Your task to perform on an android device: turn on notifications settings in the gmail app Image 0: 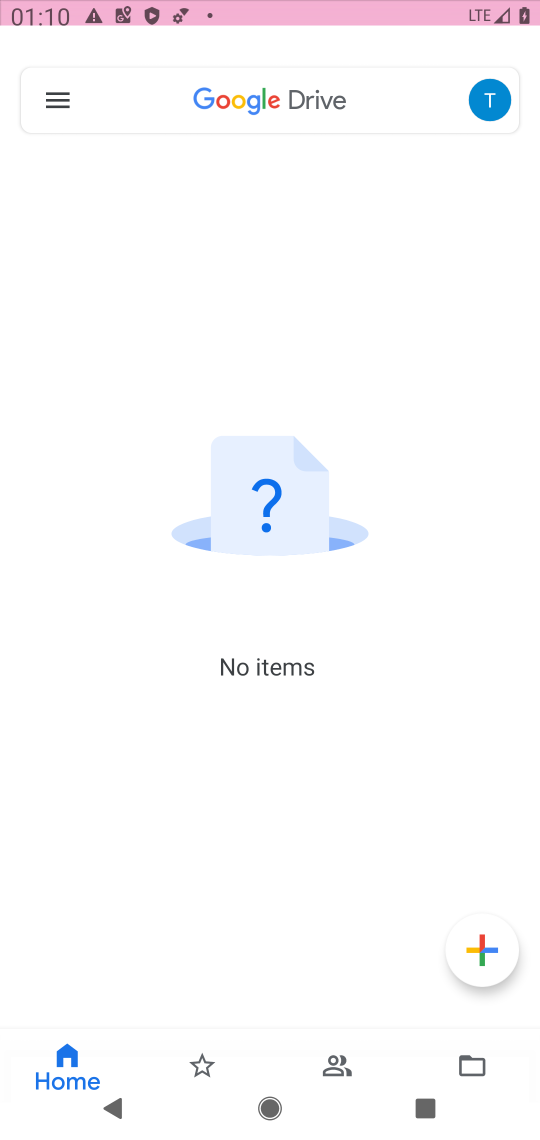
Step 0: press home button
Your task to perform on an android device: turn on notifications settings in the gmail app Image 1: 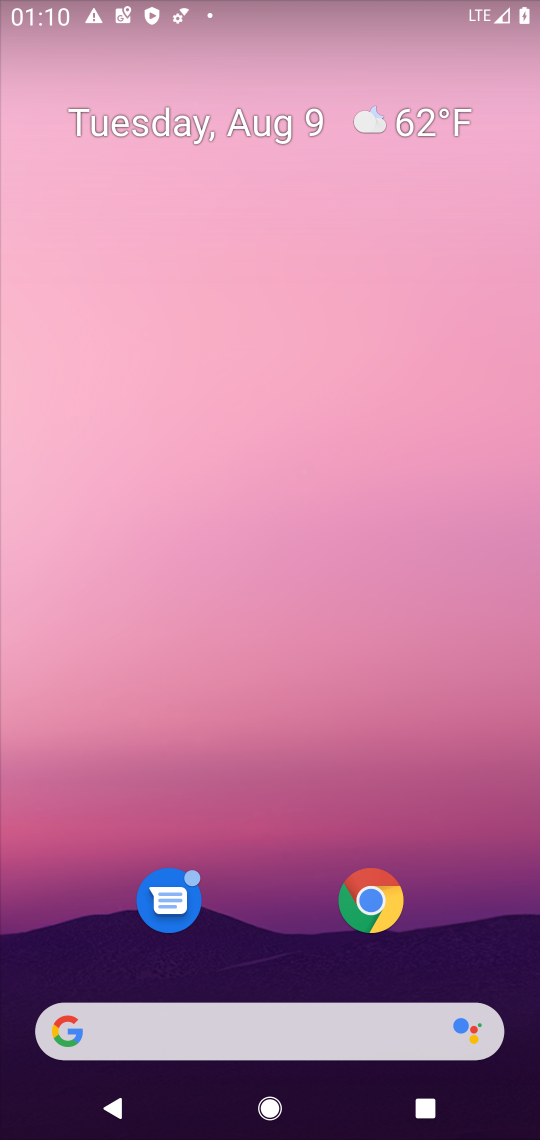
Step 1: drag from (275, 964) to (350, 215)
Your task to perform on an android device: turn on notifications settings in the gmail app Image 2: 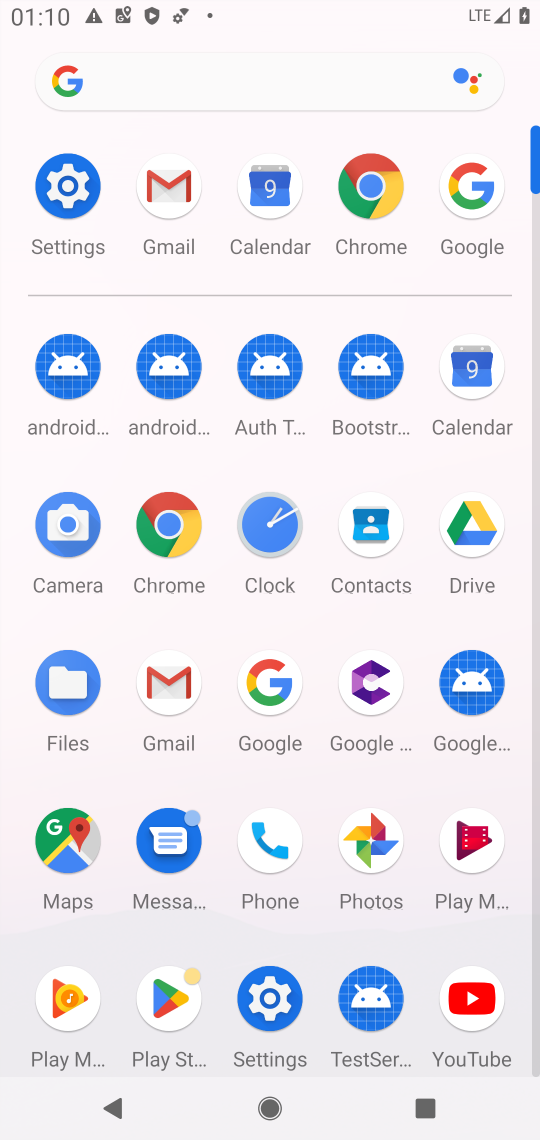
Step 2: click (162, 695)
Your task to perform on an android device: turn on notifications settings in the gmail app Image 3: 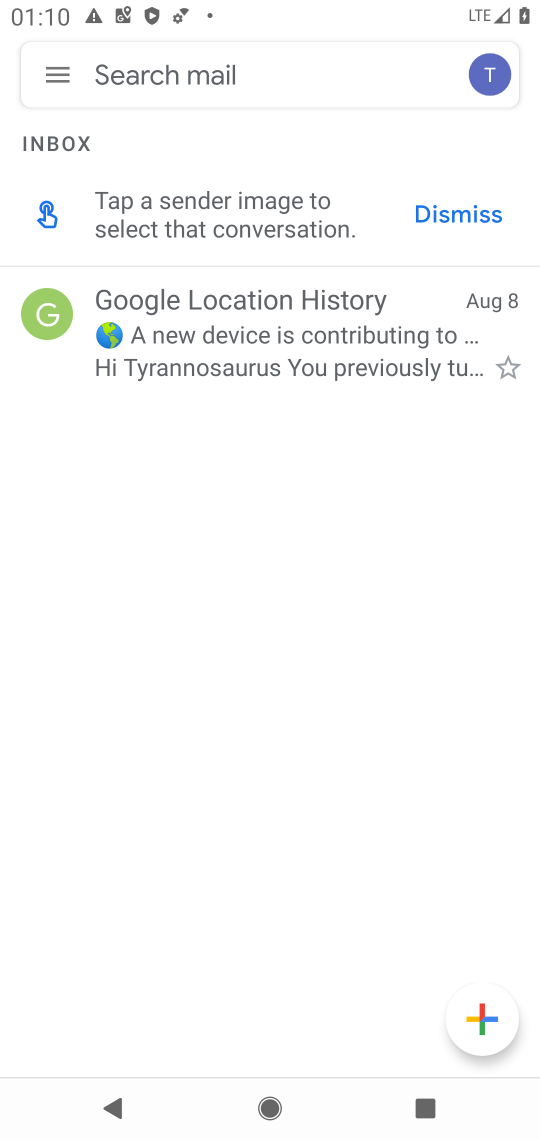
Step 3: click (58, 74)
Your task to perform on an android device: turn on notifications settings in the gmail app Image 4: 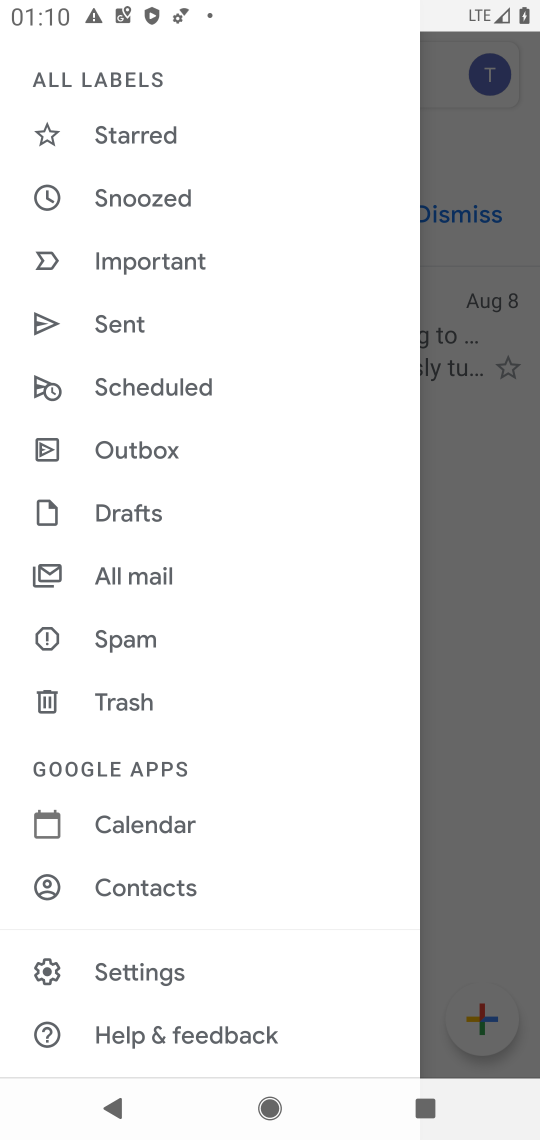
Step 4: click (153, 974)
Your task to perform on an android device: turn on notifications settings in the gmail app Image 5: 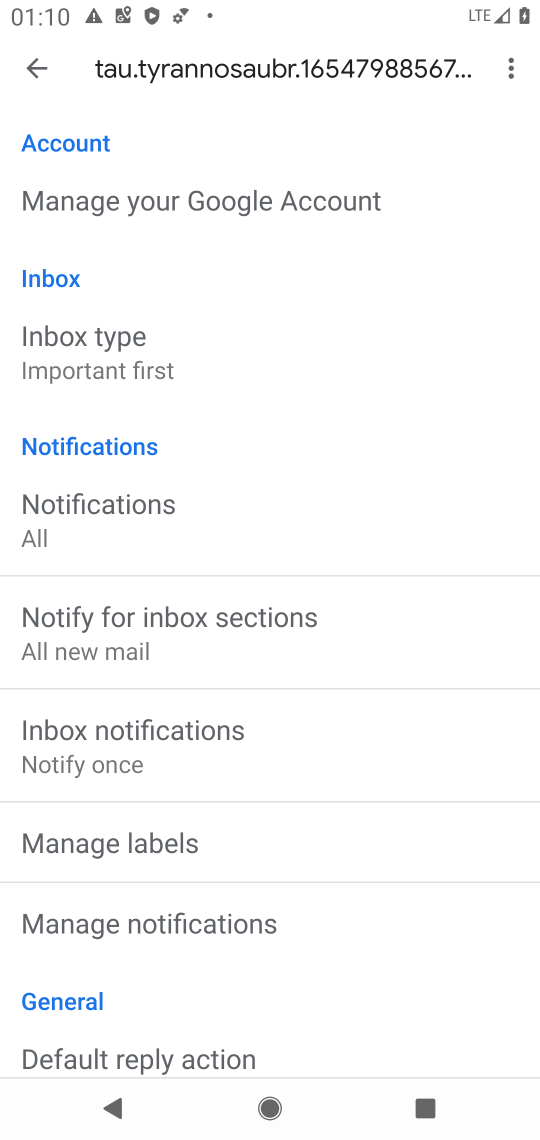
Step 5: drag from (368, 770) to (381, 441)
Your task to perform on an android device: turn on notifications settings in the gmail app Image 6: 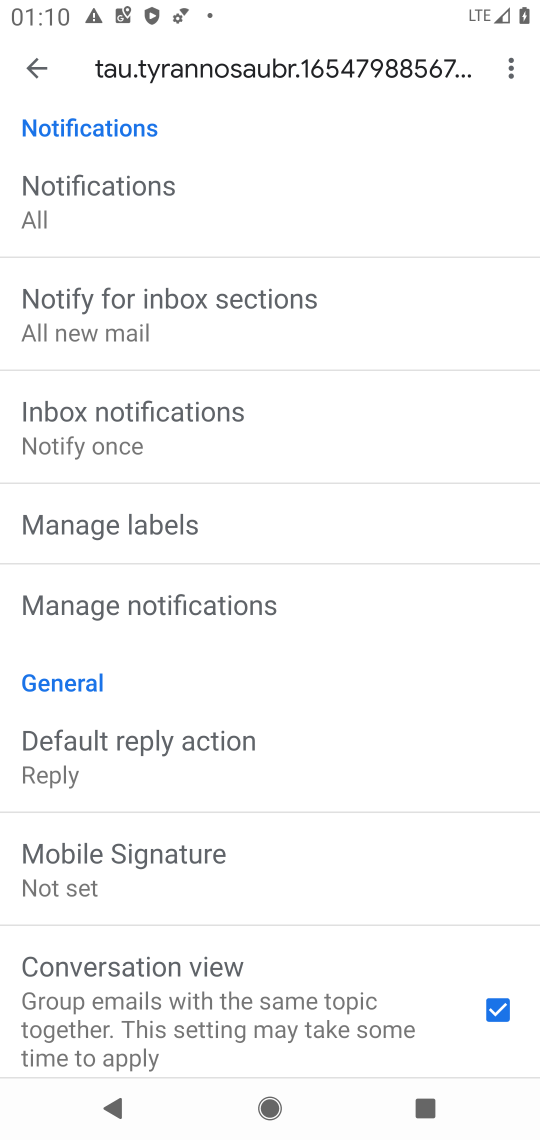
Step 6: drag from (382, 792) to (381, 382)
Your task to perform on an android device: turn on notifications settings in the gmail app Image 7: 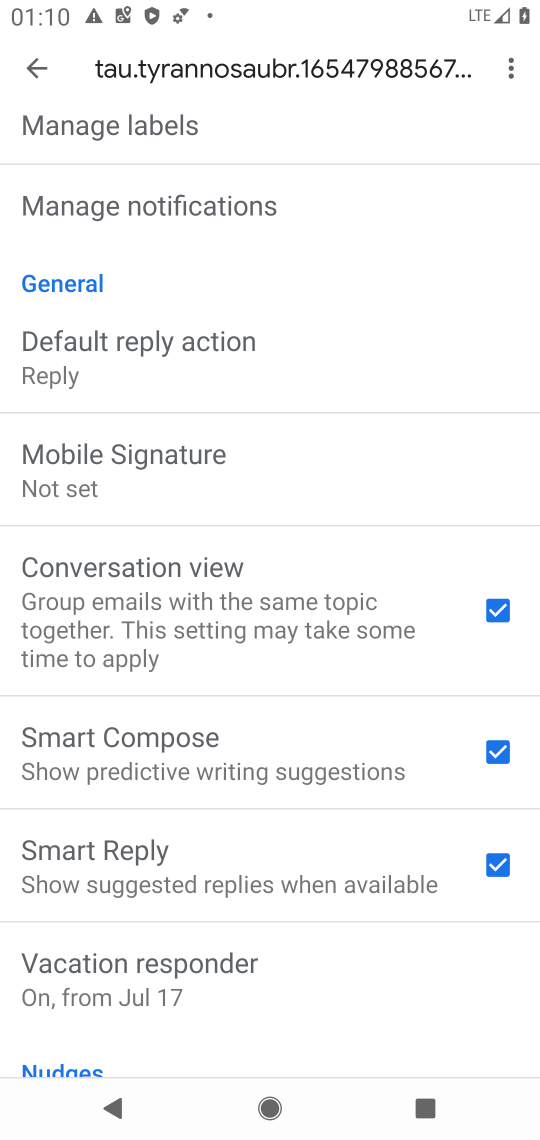
Step 7: drag from (372, 936) to (407, 476)
Your task to perform on an android device: turn on notifications settings in the gmail app Image 8: 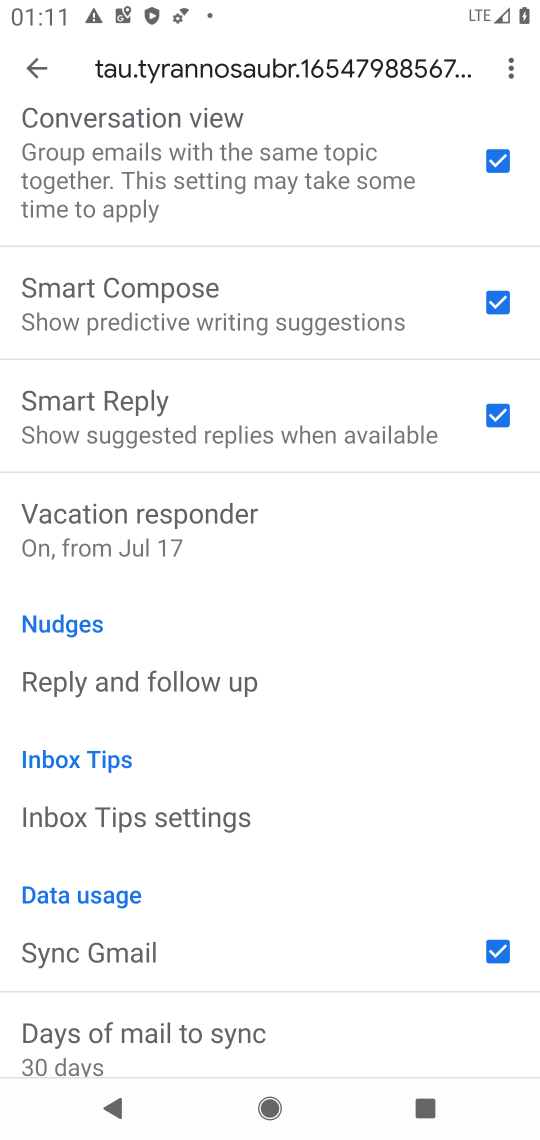
Step 8: drag from (374, 634) to (382, 516)
Your task to perform on an android device: turn on notifications settings in the gmail app Image 9: 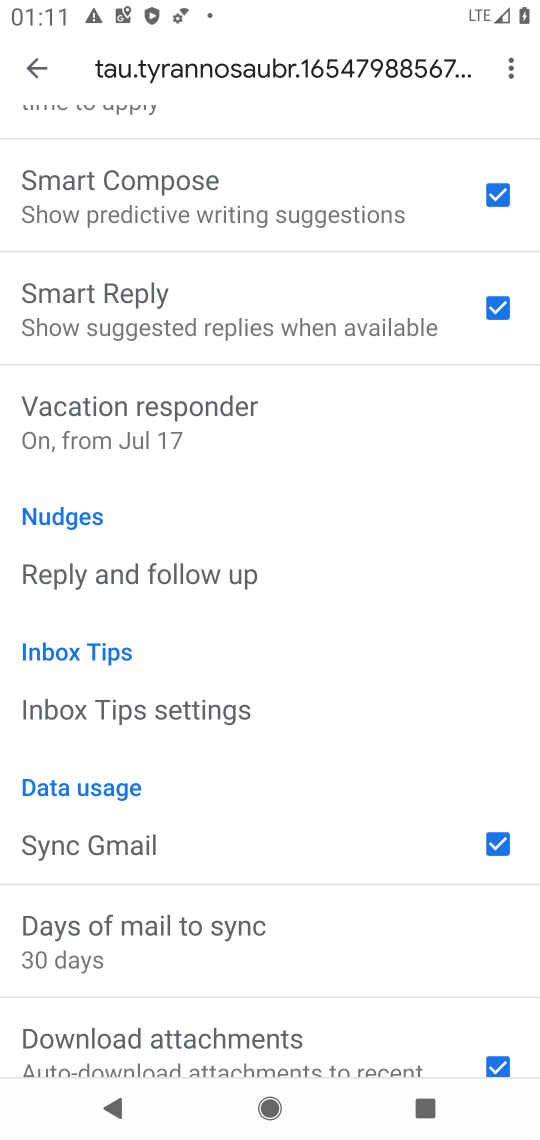
Step 9: drag from (386, 431) to (403, 638)
Your task to perform on an android device: turn on notifications settings in the gmail app Image 10: 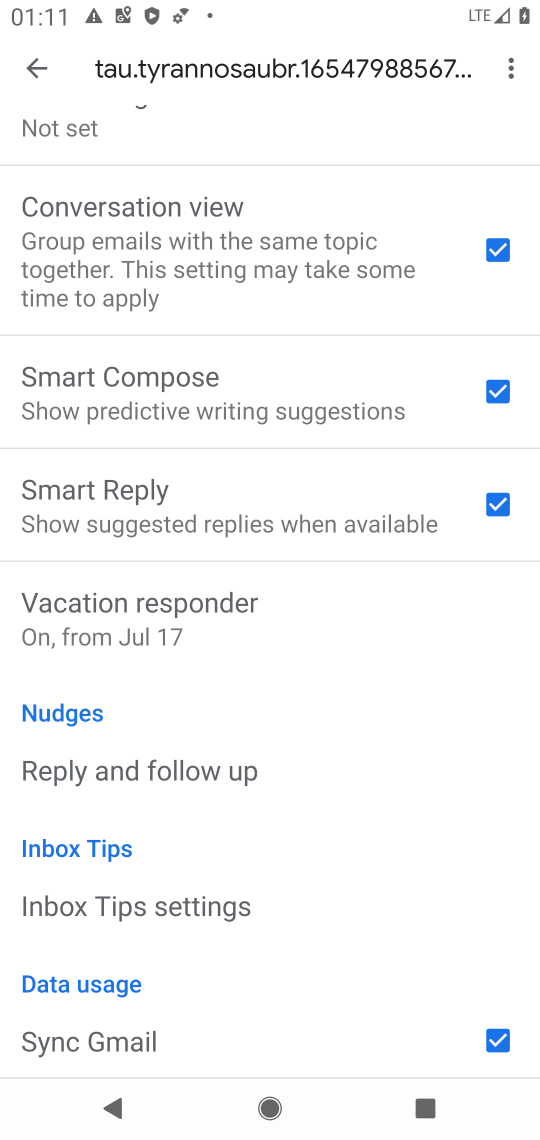
Step 10: drag from (387, 328) to (397, 643)
Your task to perform on an android device: turn on notifications settings in the gmail app Image 11: 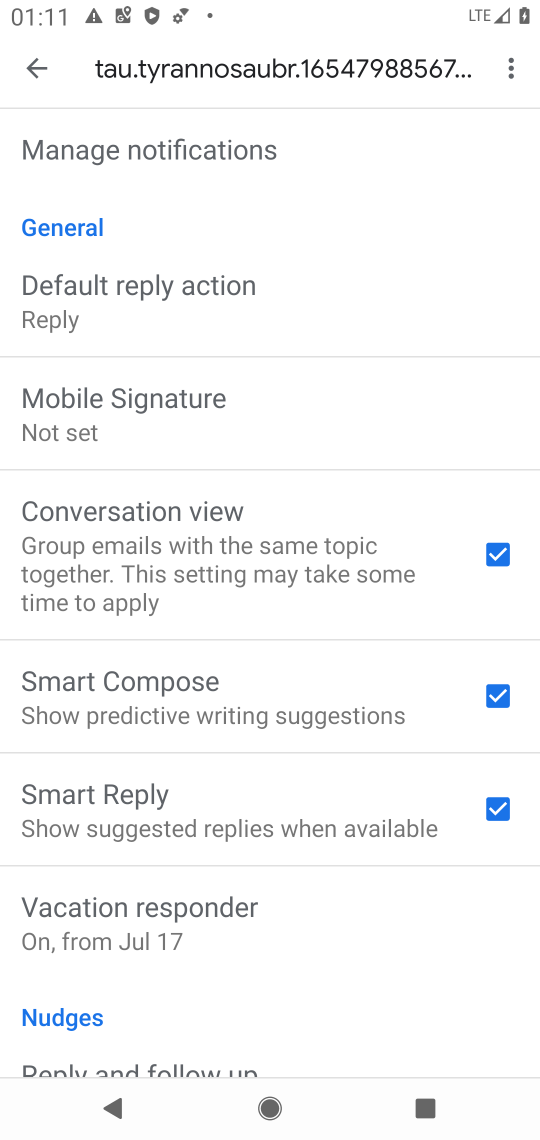
Step 11: drag from (356, 275) to (387, 517)
Your task to perform on an android device: turn on notifications settings in the gmail app Image 12: 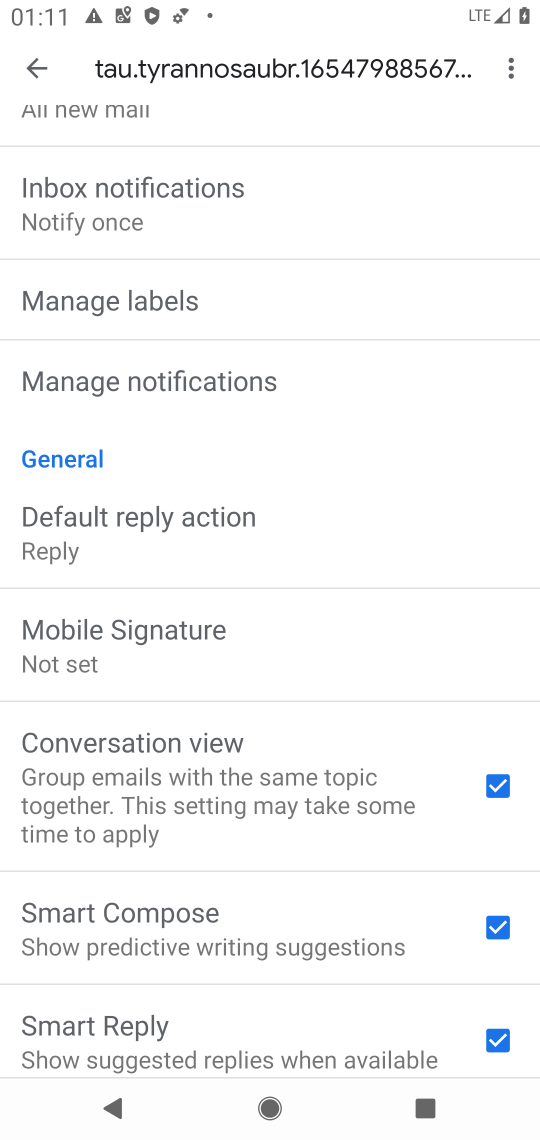
Step 12: drag from (384, 243) to (377, 471)
Your task to perform on an android device: turn on notifications settings in the gmail app Image 13: 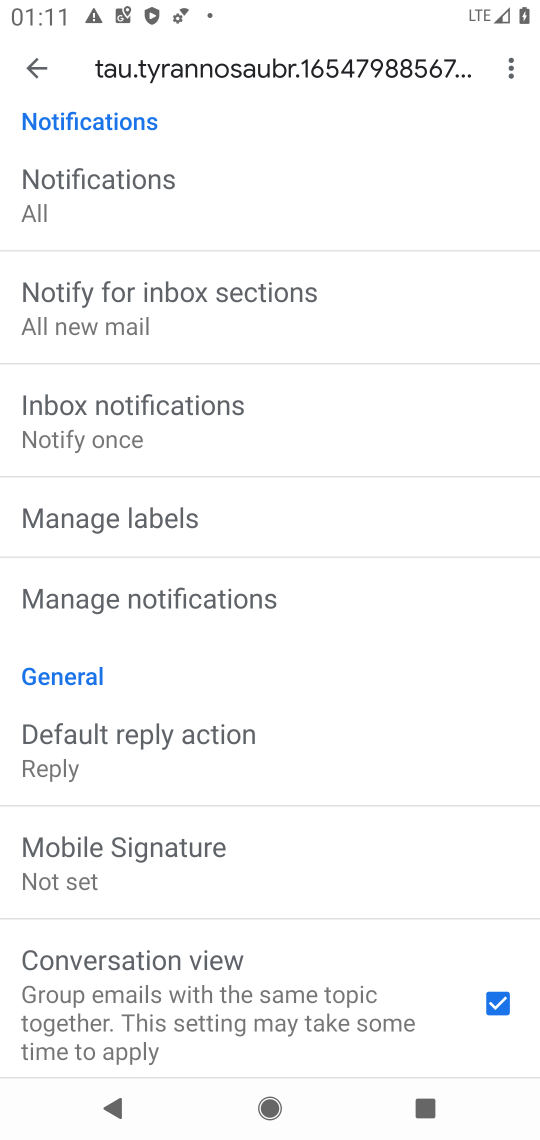
Step 13: click (324, 580)
Your task to perform on an android device: turn on notifications settings in the gmail app Image 14: 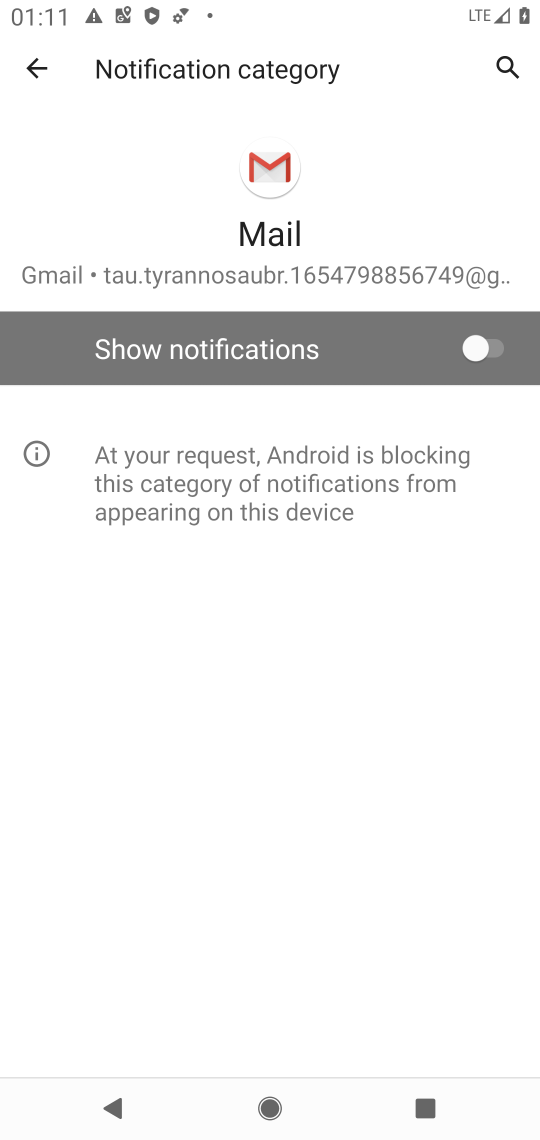
Step 14: click (324, 580)
Your task to perform on an android device: turn on notifications settings in the gmail app Image 15: 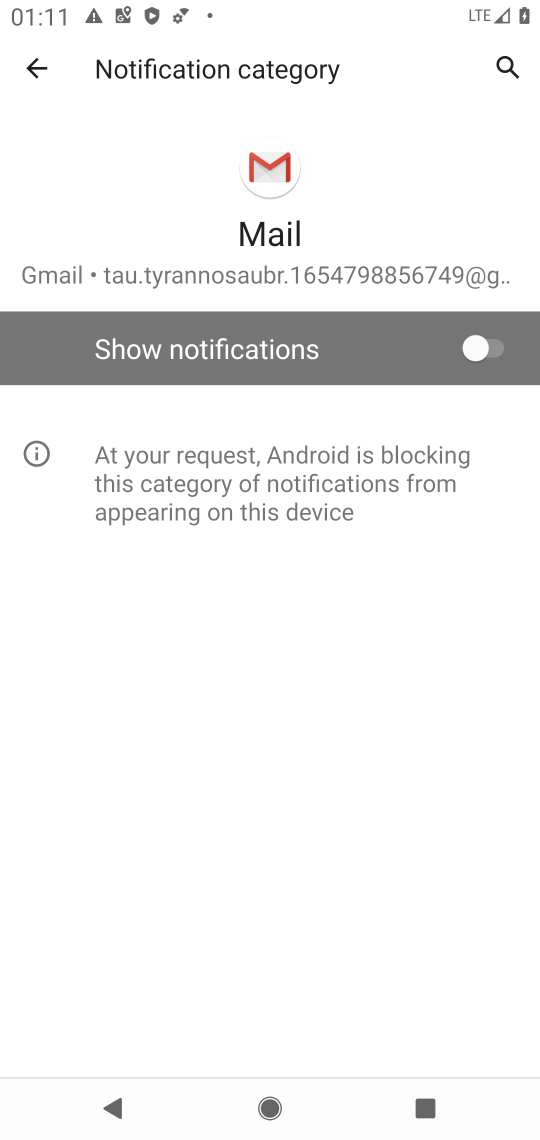
Step 15: click (474, 346)
Your task to perform on an android device: turn on notifications settings in the gmail app Image 16: 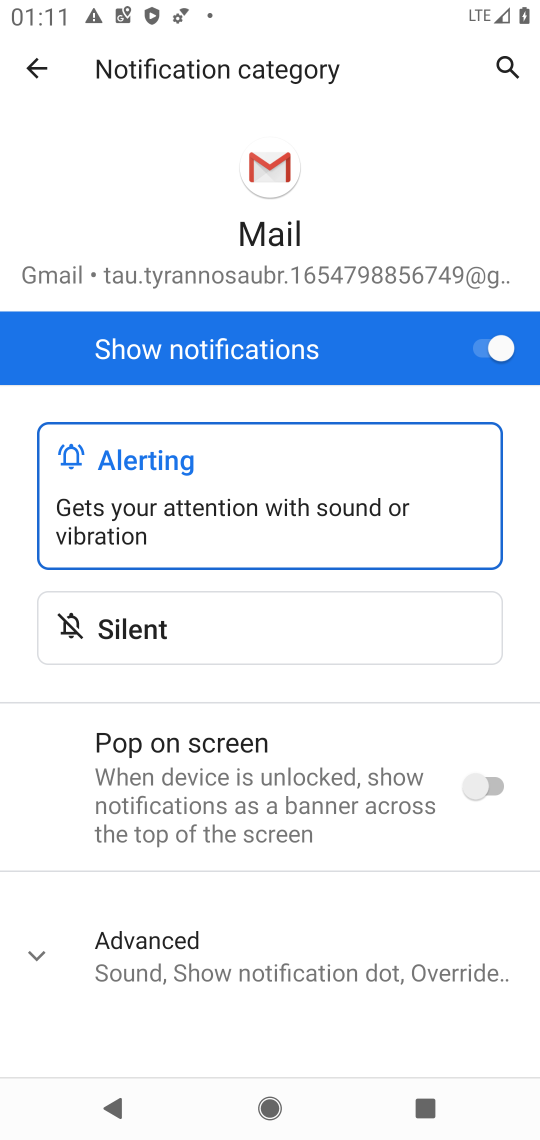
Step 16: task complete